Your task to perform on an android device: Go to privacy settings Image 0: 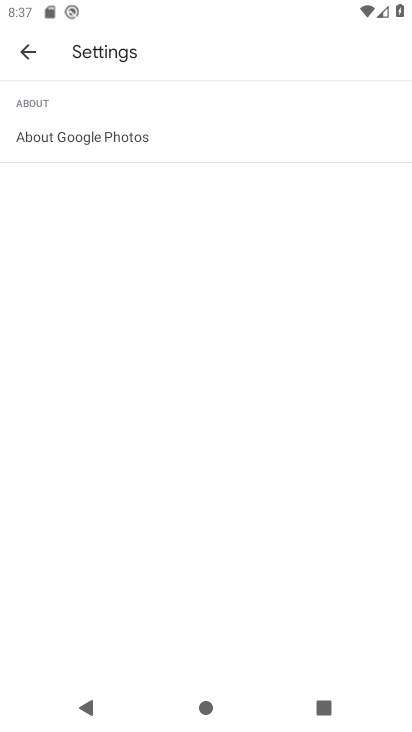
Step 0: click (17, 33)
Your task to perform on an android device: Go to privacy settings Image 1: 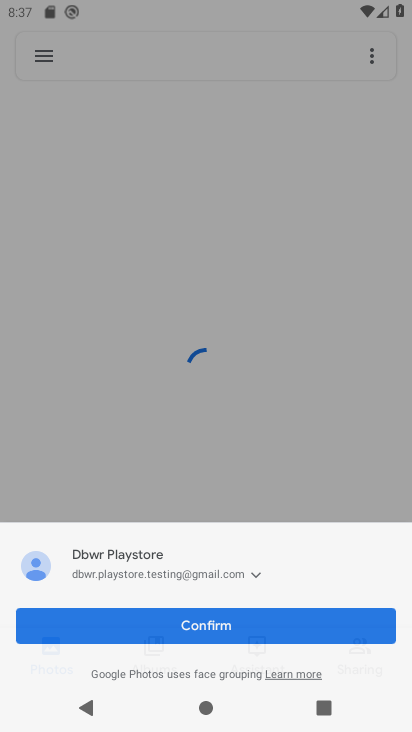
Step 1: press home button
Your task to perform on an android device: Go to privacy settings Image 2: 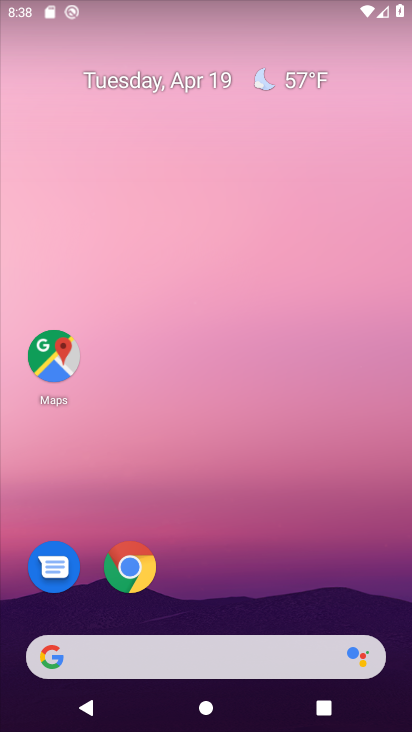
Step 2: drag from (267, 499) to (290, 1)
Your task to perform on an android device: Go to privacy settings Image 3: 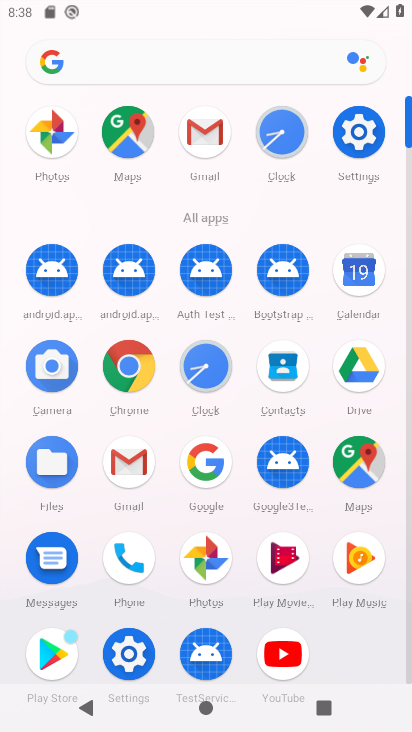
Step 3: click (356, 143)
Your task to perform on an android device: Go to privacy settings Image 4: 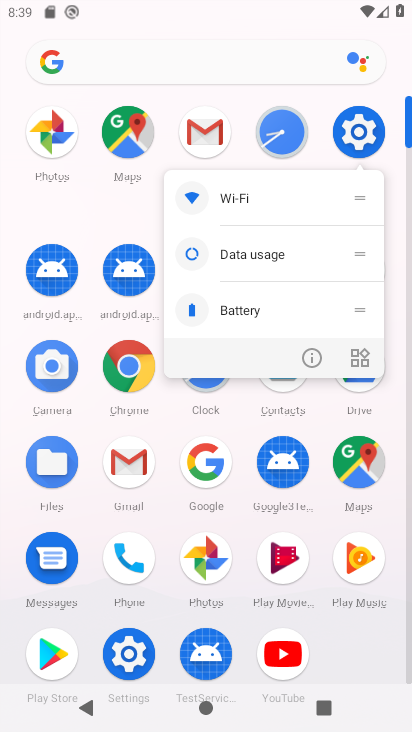
Step 4: click (355, 141)
Your task to perform on an android device: Go to privacy settings Image 5: 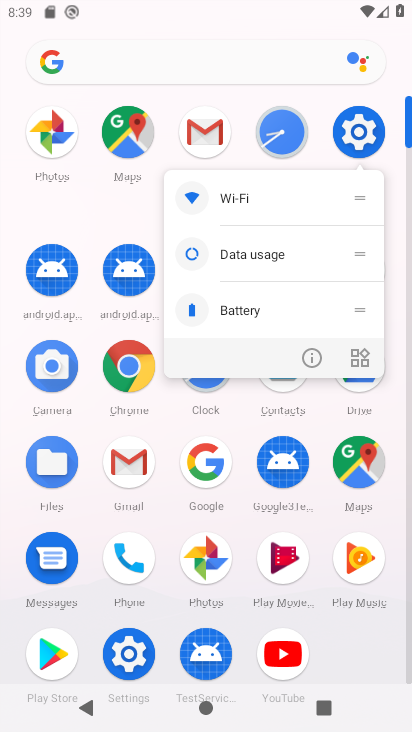
Step 5: click (356, 141)
Your task to perform on an android device: Go to privacy settings Image 6: 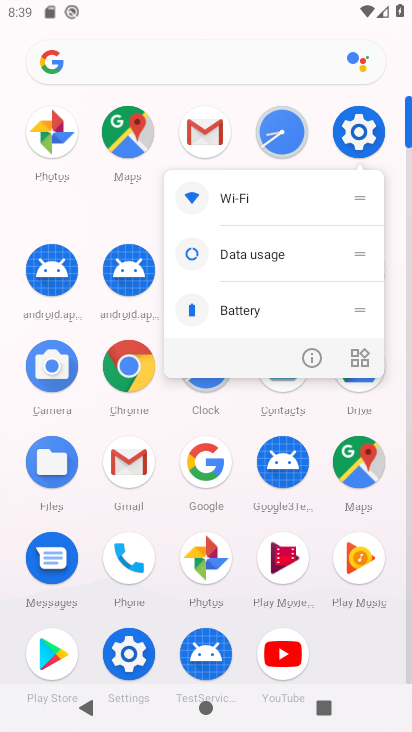
Step 6: click (366, 120)
Your task to perform on an android device: Go to privacy settings Image 7: 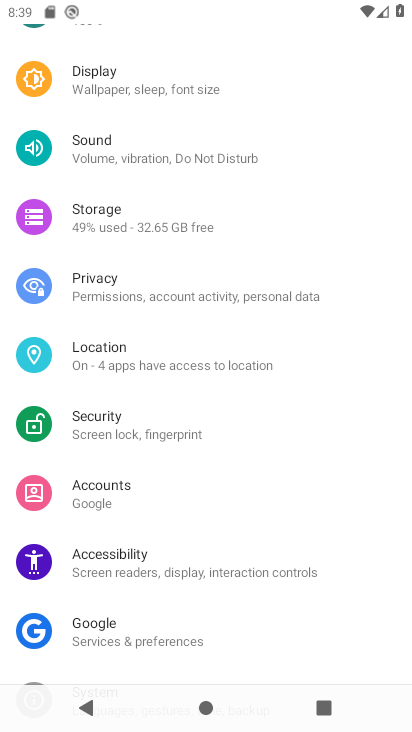
Step 7: click (88, 283)
Your task to perform on an android device: Go to privacy settings Image 8: 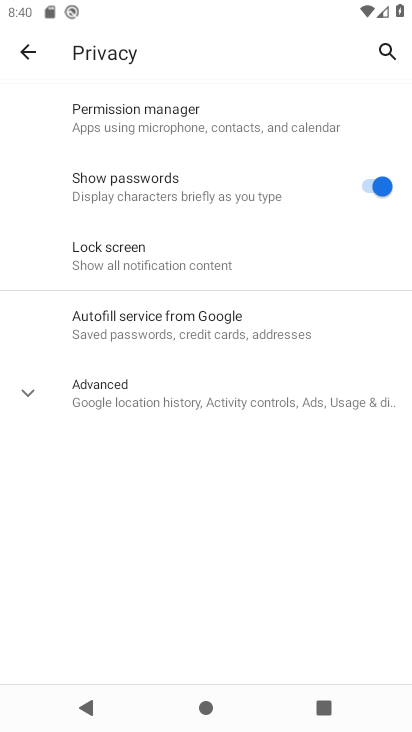
Step 8: task complete